Your task to perform on an android device: turn on the 24-hour format for clock Image 0: 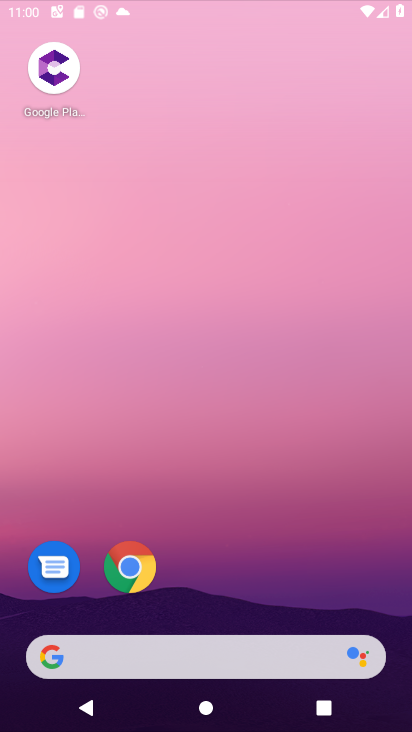
Step 0: drag from (230, 702) to (217, 148)
Your task to perform on an android device: turn on the 24-hour format for clock Image 1: 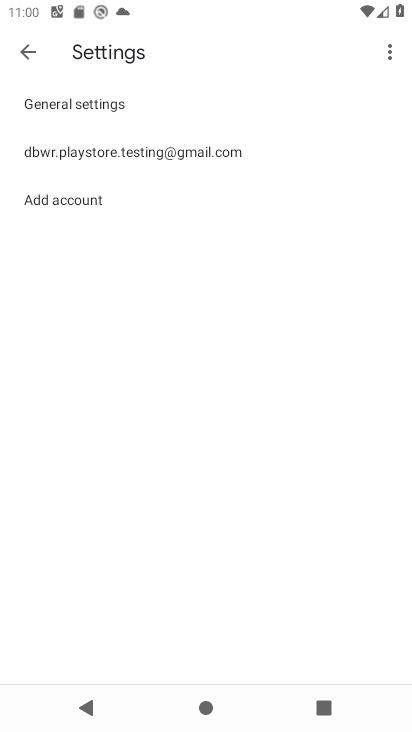
Step 1: press home button
Your task to perform on an android device: turn on the 24-hour format for clock Image 2: 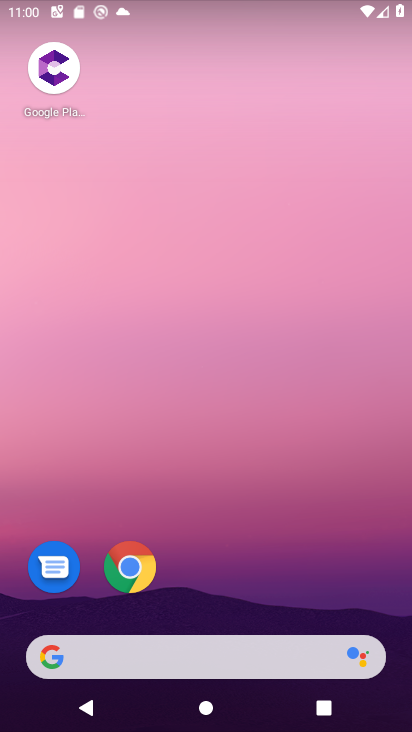
Step 2: drag from (233, 727) to (235, 209)
Your task to perform on an android device: turn on the 24-hour format for clock Image 3: 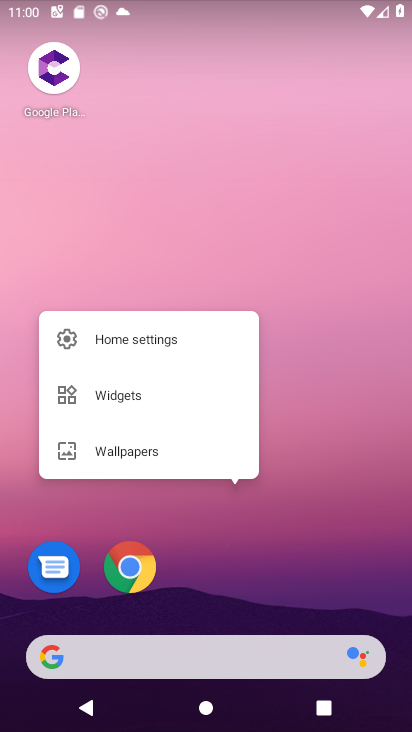
Step 3: click (259, 212)
Your task to perform on an android device: turn on the 24-hour format for clock Image 4: 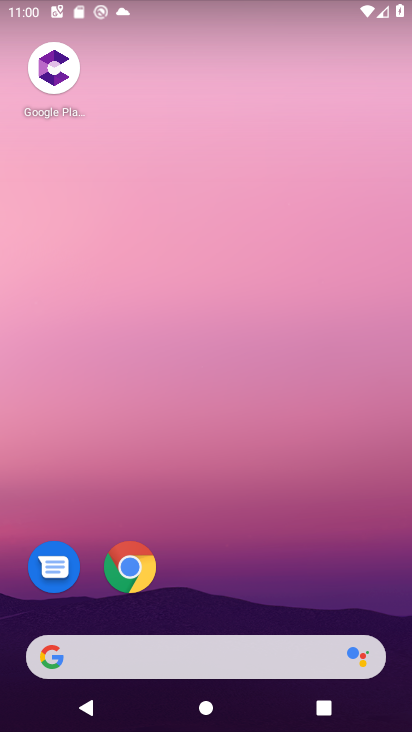
Step 4: drag from (242, 731) to (241, 8)
Your task to perform on an android device: turn on the 24-hour format for clock Image 5: 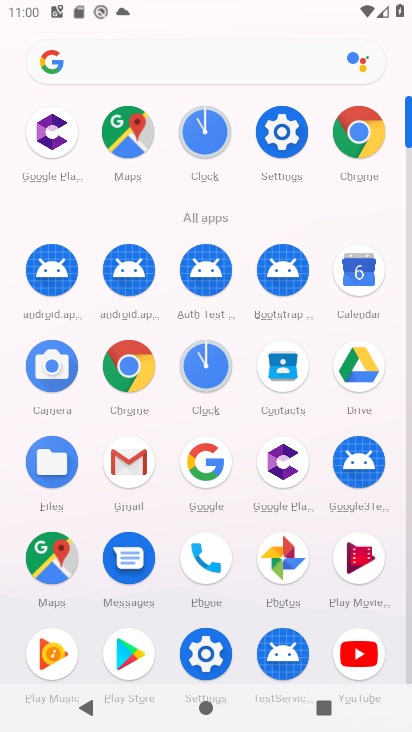
Step 5: click (208, 367)
Your task to perform on an android device: turn on the 24-hour format for clock Image 6: 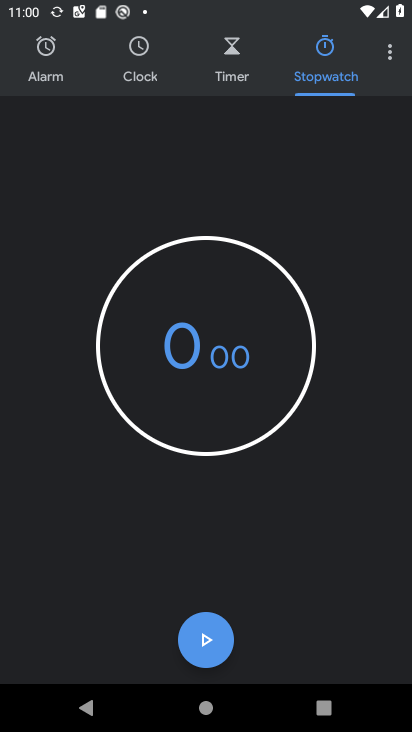
Step 6: click (390, 56)
Your task to perform on an android device: turn on the 24-hour format for clock Image 7: 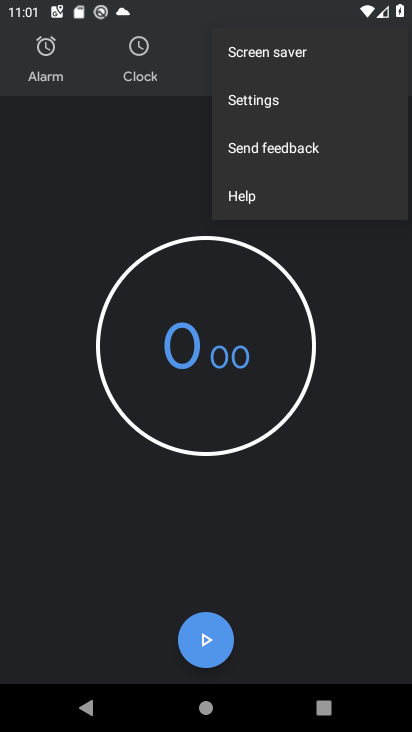
Step 7: click (243, 101)
Your task to perform on an android device: turn on the 24-hour format for clock Image 8: 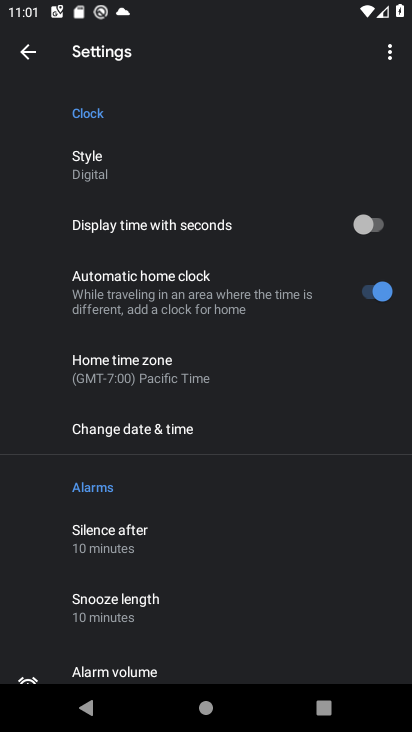
Step 8: click (127, 431)
Your task to perform on an android device: turn on the 24-hour format for clock Image 9: 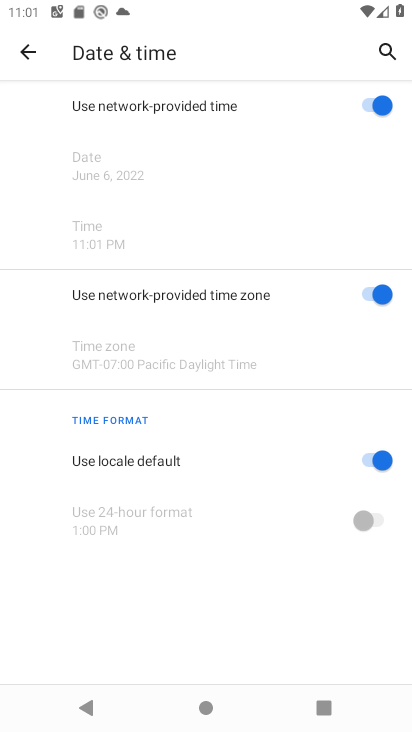
Step 9: click (369, 458)
Your task to perform on an android device: turn on the 24-hour format for clock Image 10: 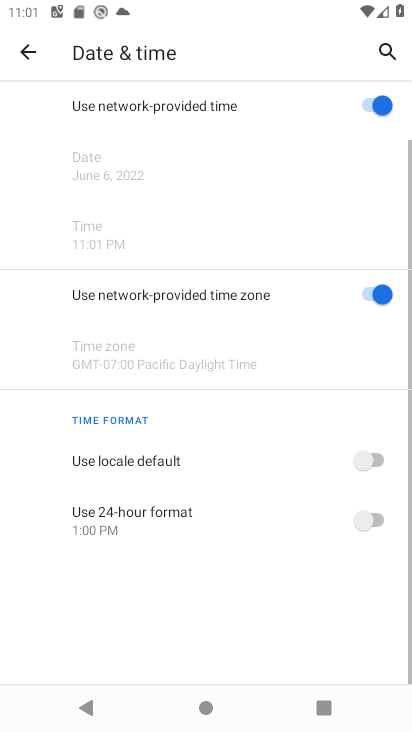
Step 10: click (374, 523)
Your task to perform on an android device: turn on the 24-hour format for clock Image 11: 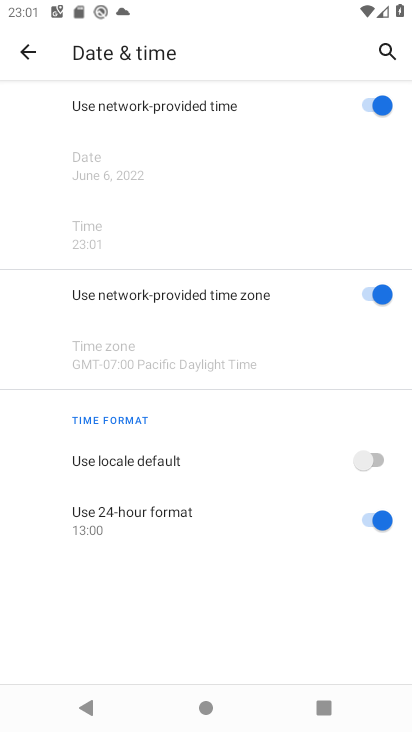
Step 11: task complete